Your task to perform on an android device: set an alarm Image 0: 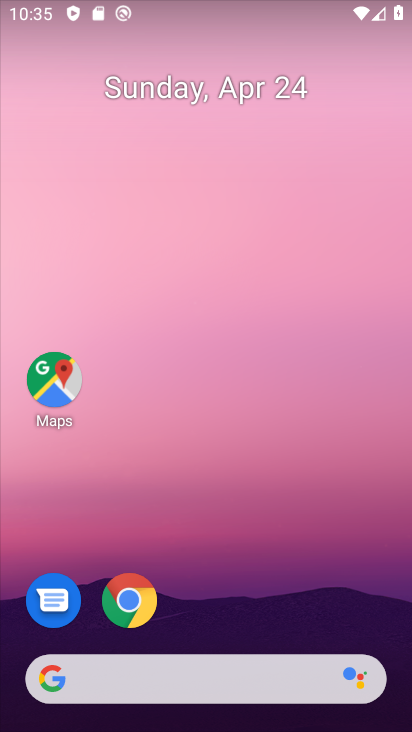
Step 0: drag from (179, 725) to (176, 190)
Your task to perform on an android device: set an alarm Image 1: 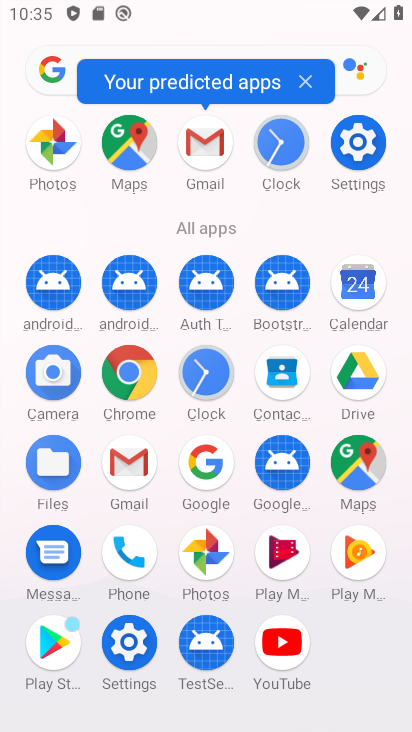
Step 1: click (293, 155)
Your task to perform on an android device: set an alarm Image 2: 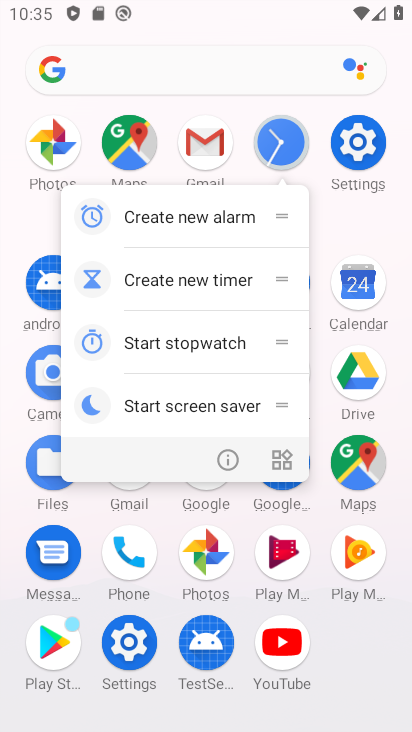
Step 2: click (225, 463)
Your task to perform on an android device: set an alarm Image 3: 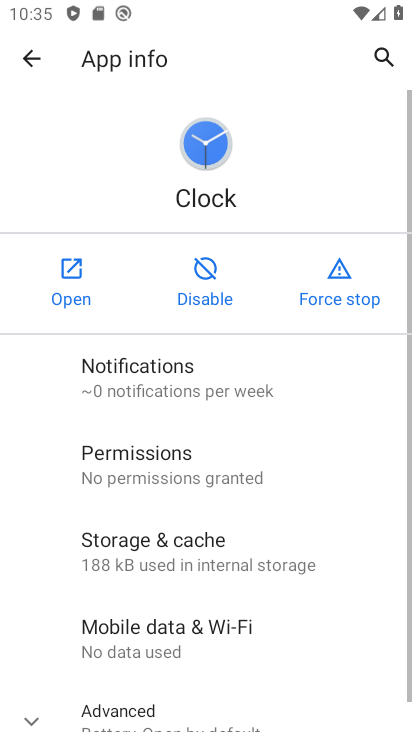
Step 3: click (69, 271)
Your task to perform on an android device: set an alarm Image 4: 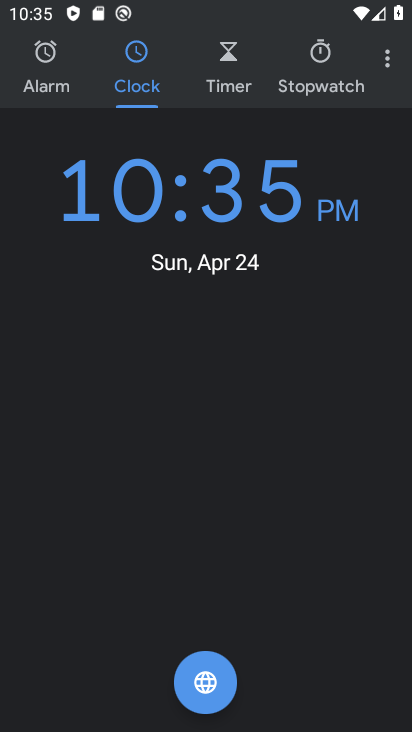
Step 4: click (58, 57)
Your task to perform on an android device: set an alarm Image 5: 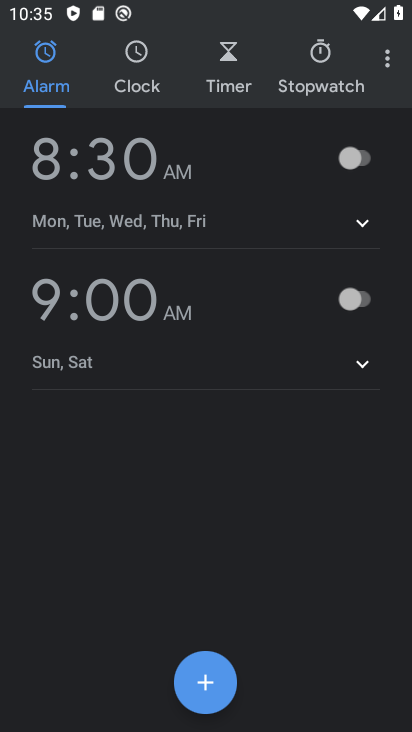
Step 5: click (356, 160)
Your task to perform on an android device: set an alarm Image 6: 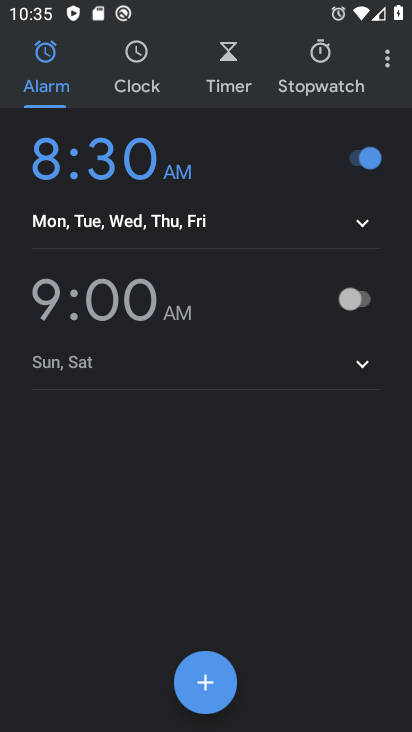
Step 6: task complete